Your task to perform on an android device: Go to network settings Image 0: 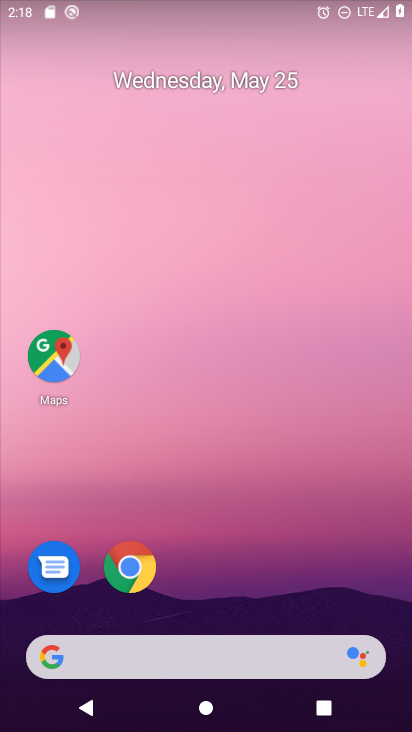
Step 0: drag from (385, 616) to (335, 346)
Your task to perform on an android device: Go to network settings Image 1: 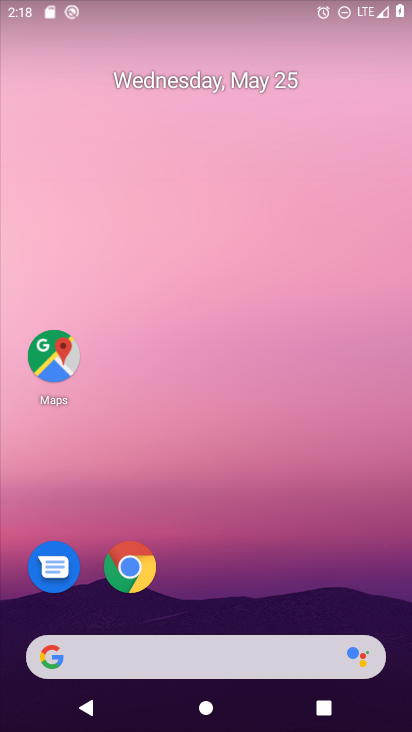
Step 1: click (329, 142)
Your task to perform on an android device: Go to network settings Image 2: 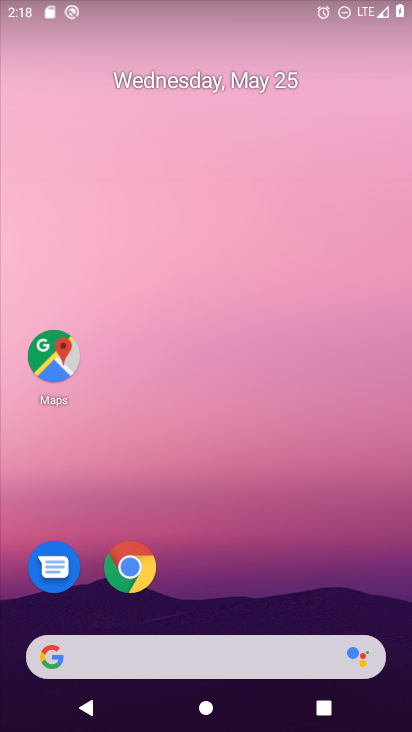
Step 2: drag from (384, 688) to (368, 239)
Your task to perform on an android device: Go to network settings Image 3: 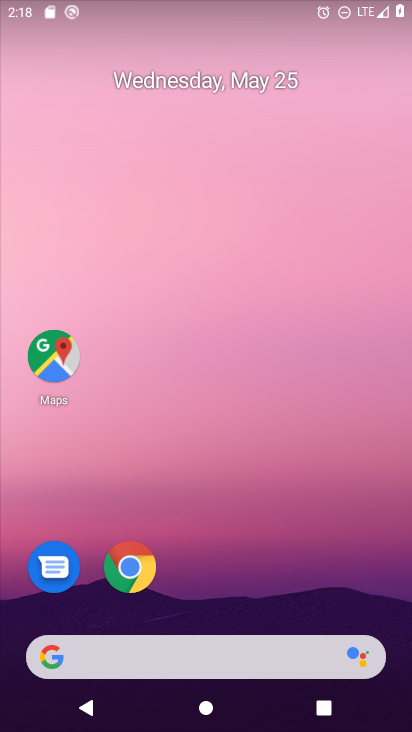
Step 3: drag from (403, 671) to (344, 126)
Your task to perform on an android device: Go to network settings Image 4: 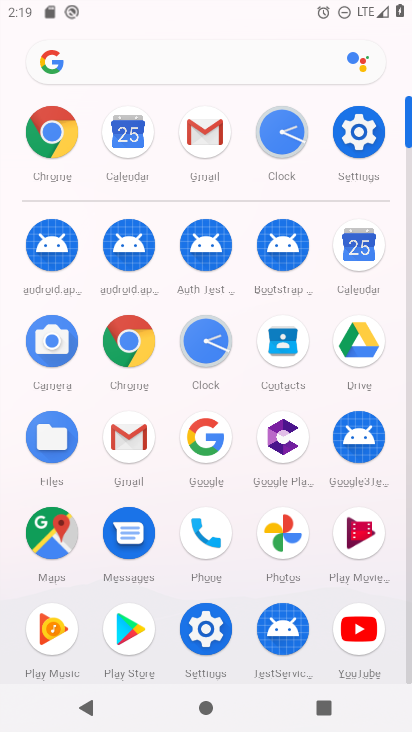
Step 4: click (368, 135)
Your task to perform on an android device: Go to network settings Image 5: 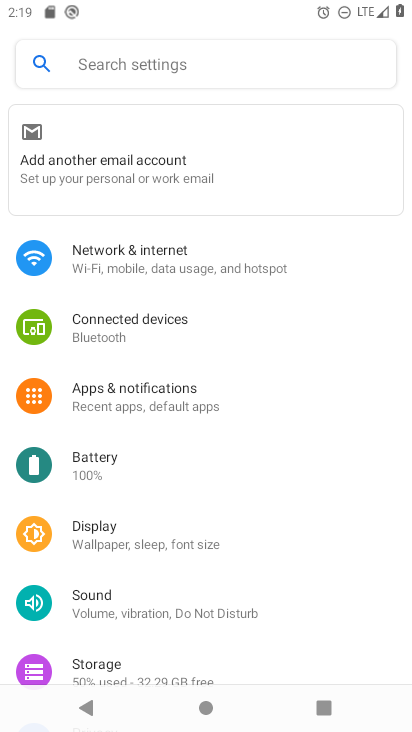
Step 5: click (123, 256)
Your task to perform on an android device: Go to network settings Image 6: 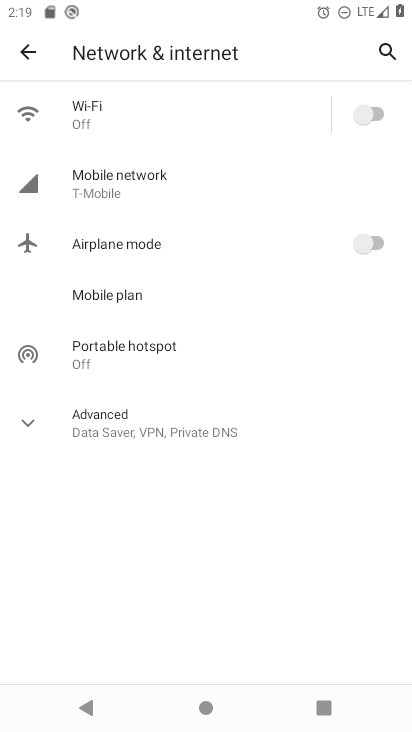
Step 6: click (98, 186)
Your task to perform on an android device: Go to network settings Image 7: 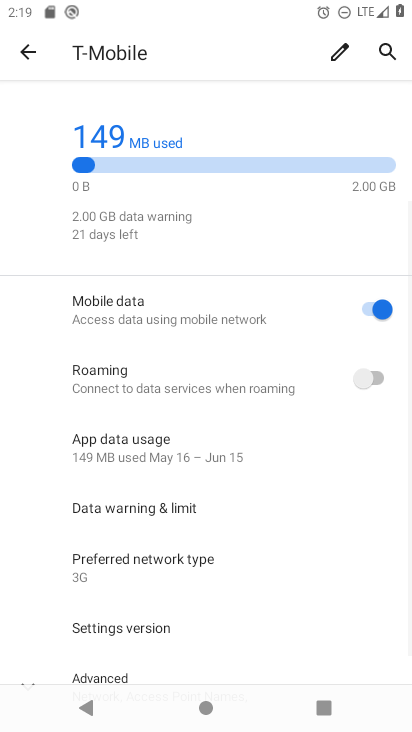
Step 7: drag from (248, 634) to (296, 242)
Your task to perform on an android device: Go to network settings Image 8: 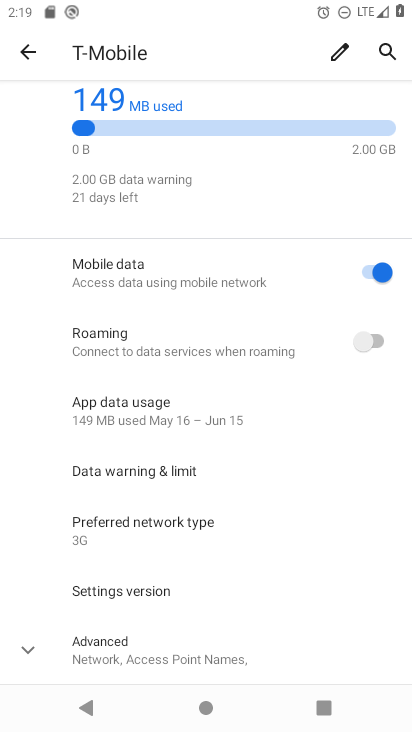
Step 8: click (97, 590)
Your task to perform on an android device: Go to network settings Image 9: 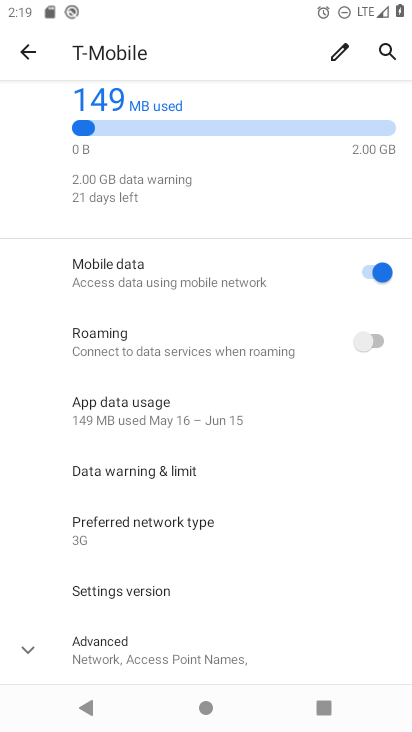
Step 9: task complete